Your task to perform on an android device: change text size in settings app Image 0: 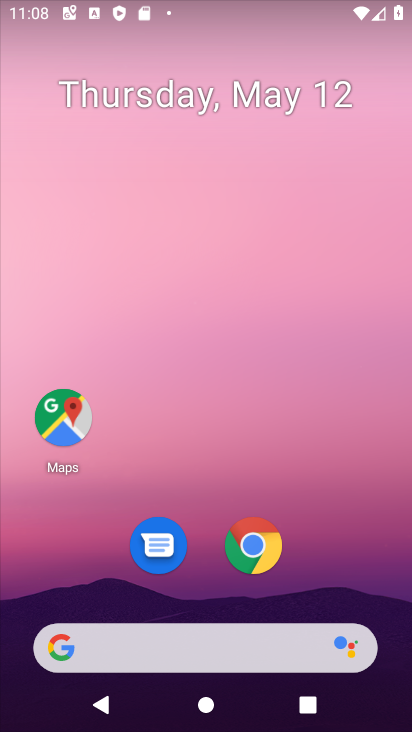
Step 0: drag from (264, 667) to (232, 183)
Your task to perform on an android device: change text size in settings app Image 1: 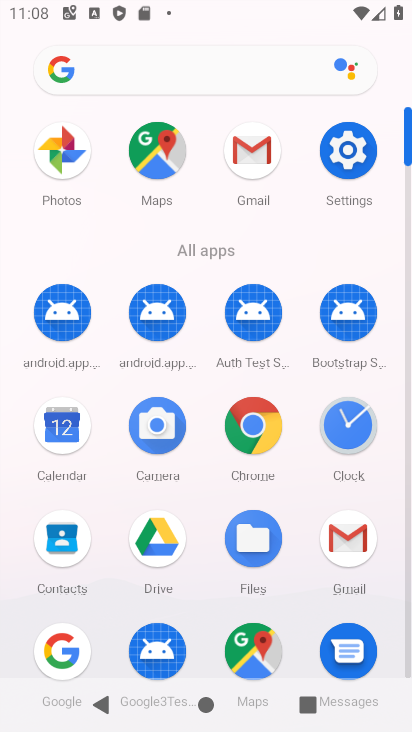
Step 1: click (333, 154)
Your task to perform on an android device: change text size in settings app Image 2: 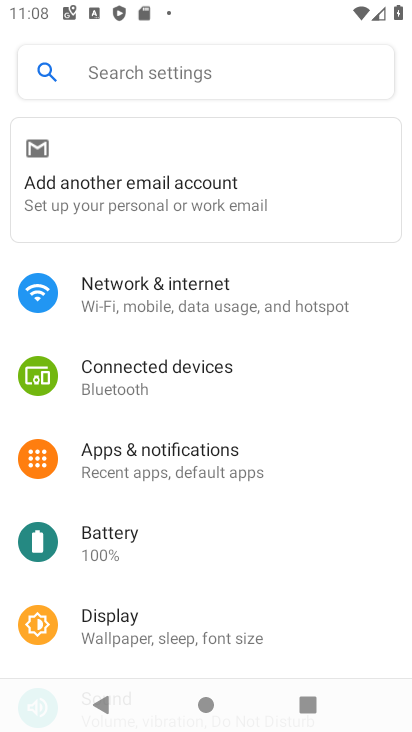
Step 2: click (161, 78)
Your task to perform on an android device: change text size in settings app Image 3: 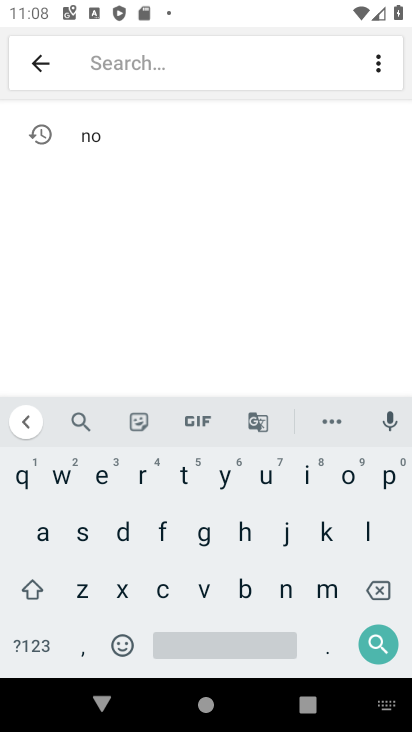
Step 3: click (73, 538)
Your task to perform on an android device: change text size in settings app Image 4: 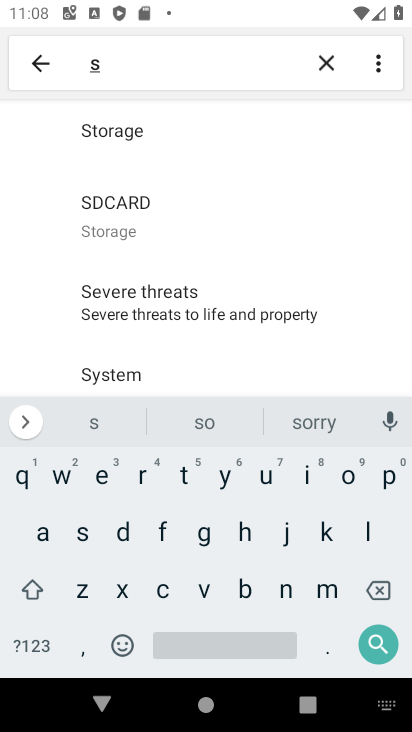
Step 4: click (307, 468)
Your task to perform on an android device: change text size in settings app Image 5: 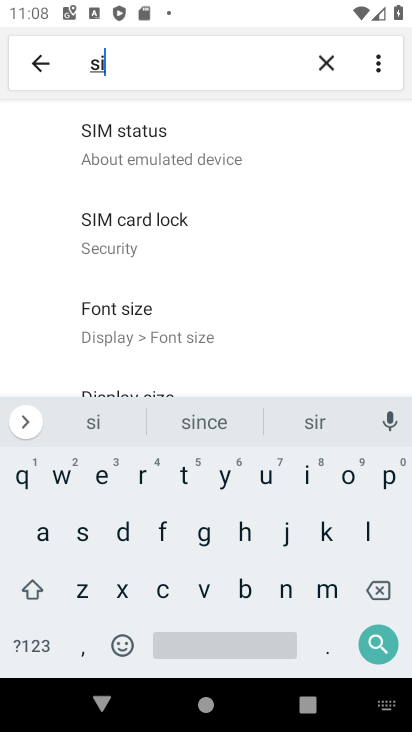
Step 5: click (84, 581)
Your task to perform on an android device: change text size in settings app Image 6: 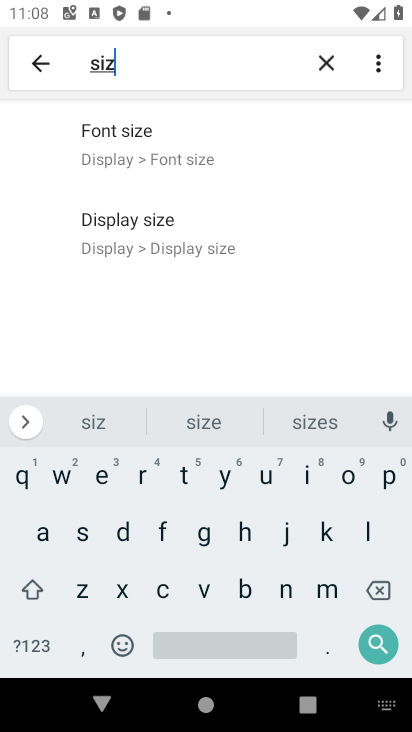
Step 6: click (195, 156)
Your task to perform on an android device: change text size in settings app Image 7: 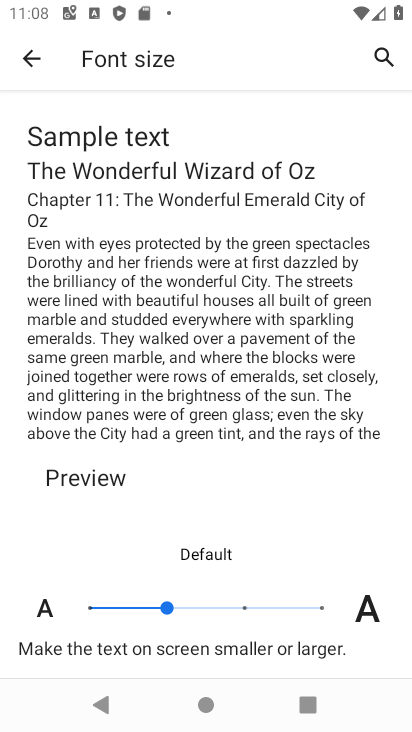
Step 7: click (241, 607)
Your task to perform on an android device: change text size in settings app Image 8: 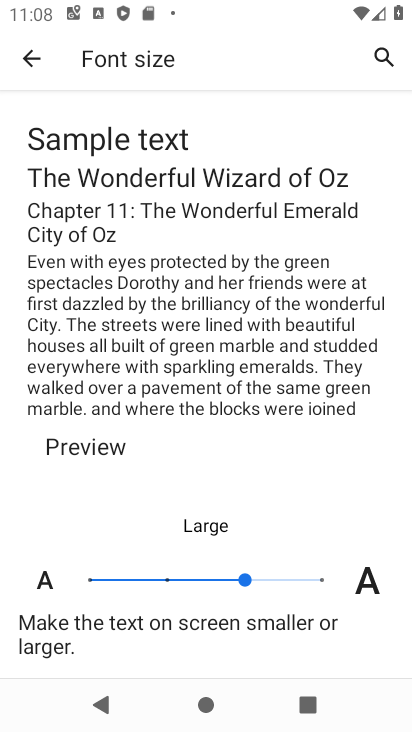
Step 8: task complete